Your task to perform on an android device: remove spam from my inbox in the gmail app Image 0: 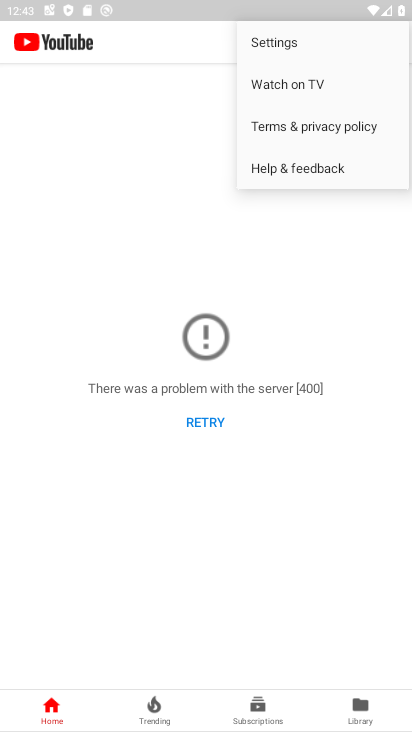
Step 0: press home button
Your task to perform on an android device: remove spam from my inbox in the gmail app Image 1: 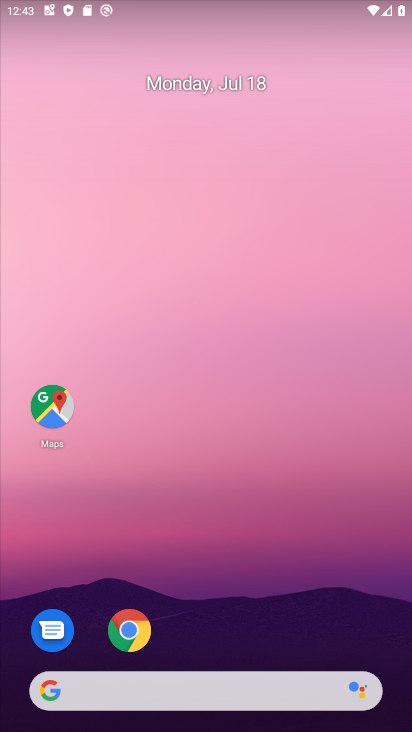
Step 1: drag from (339, 616) to (287, 57)
Your task to perform on an android device: remove spam from my inbox in the gmail app Image 2: 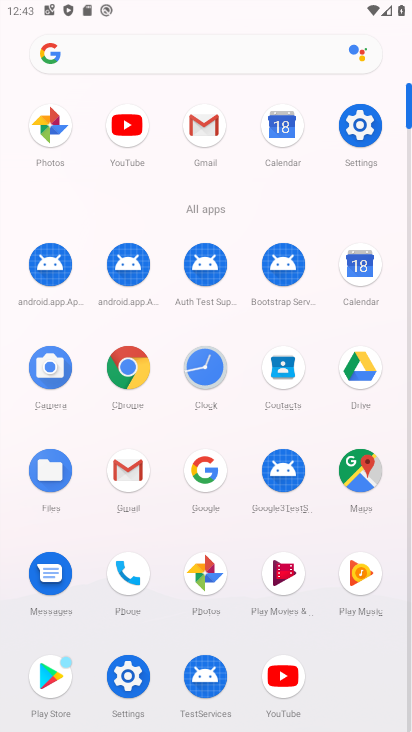
Step 2: click (199, 132)
Your task to perform on an android device: remove spam from my inbox in the gmail app Image 3: 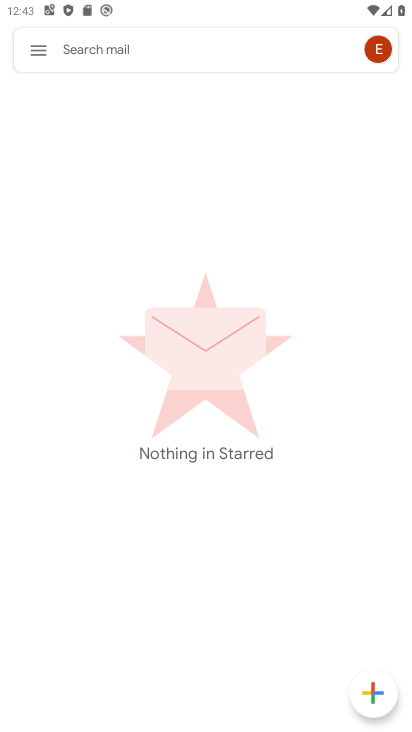
Step 3: click (34, 54)
Your task to perform on an android device: remove spam from my inbox in the gmail app Image 4: 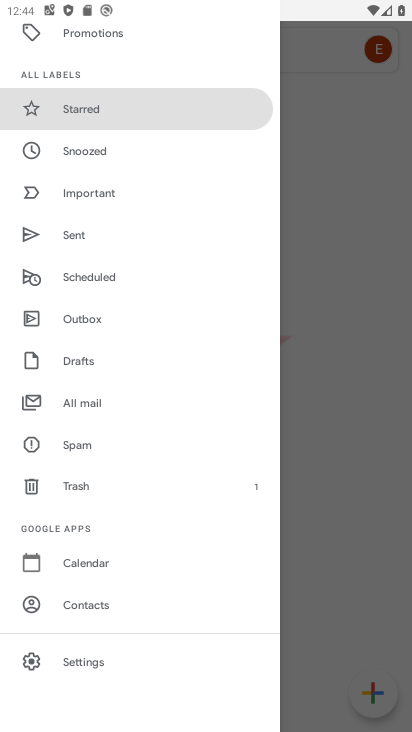
Step 4: click (120, 441)
Your task to perform on an android device: remove spam from my inbox in the gmail app Image 5: 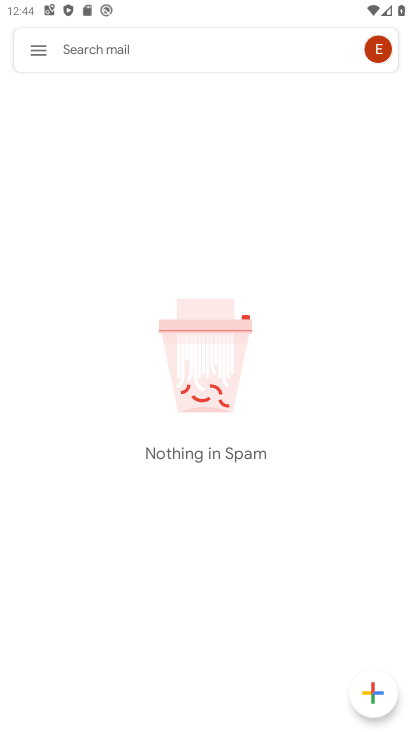
Step 5: task complete